Your task to perform on an android device: Open Amazon Image 0: 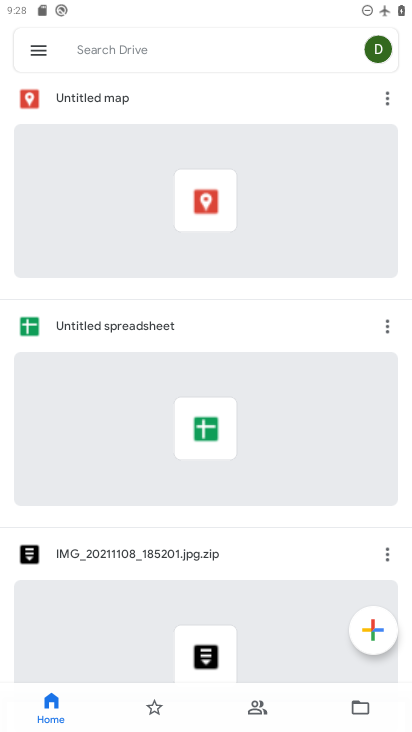
Step 0: press home button
Your task to perform on an android device: Open Amazon Image 1: 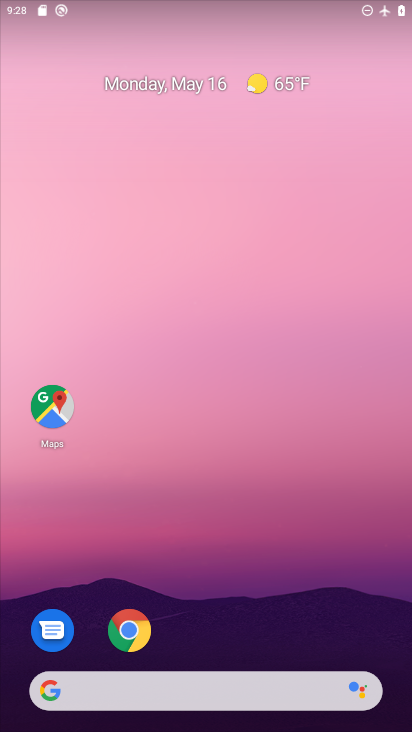
Step 1: click (133, 622)
Your task to perform on an android device: Open Amazon Image 2: 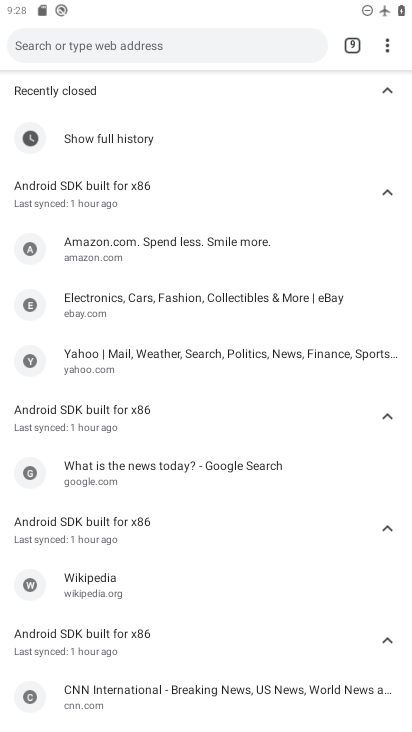
Step 2: click (351, 45)
Your task to perform on an android device: Open Amazon Image 3: 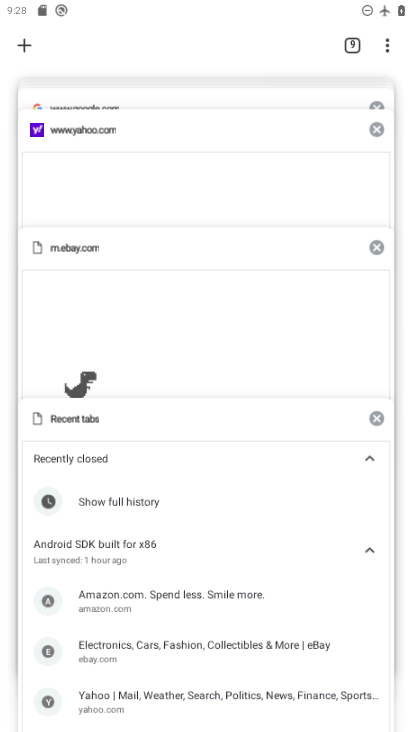
Step 3: click (22, 46)
Your task to perform on an android device: Open Amazon Image 4: 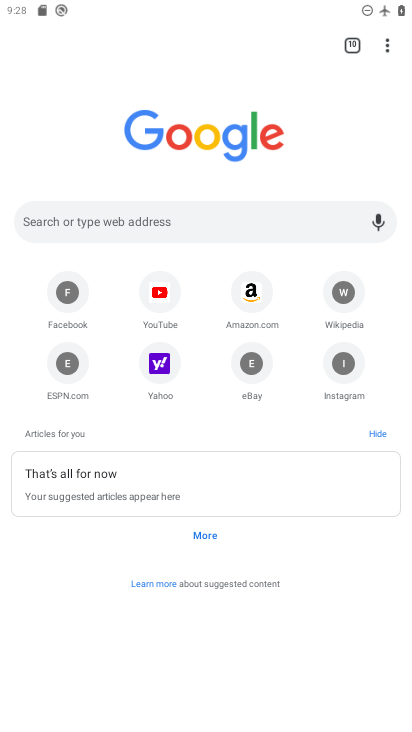
Step 4: click (243, 302)
Your task to perform on an android device: Open Amazon Image 5: 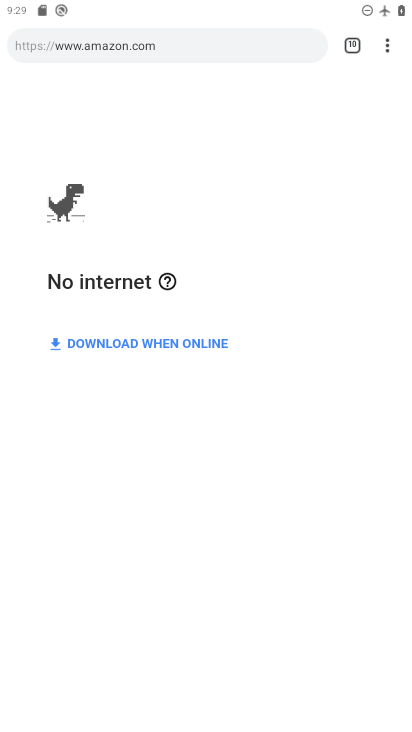
Step 5: task complete